Your task to perform on an android device: Check the settings for the Spotify app Image 0: 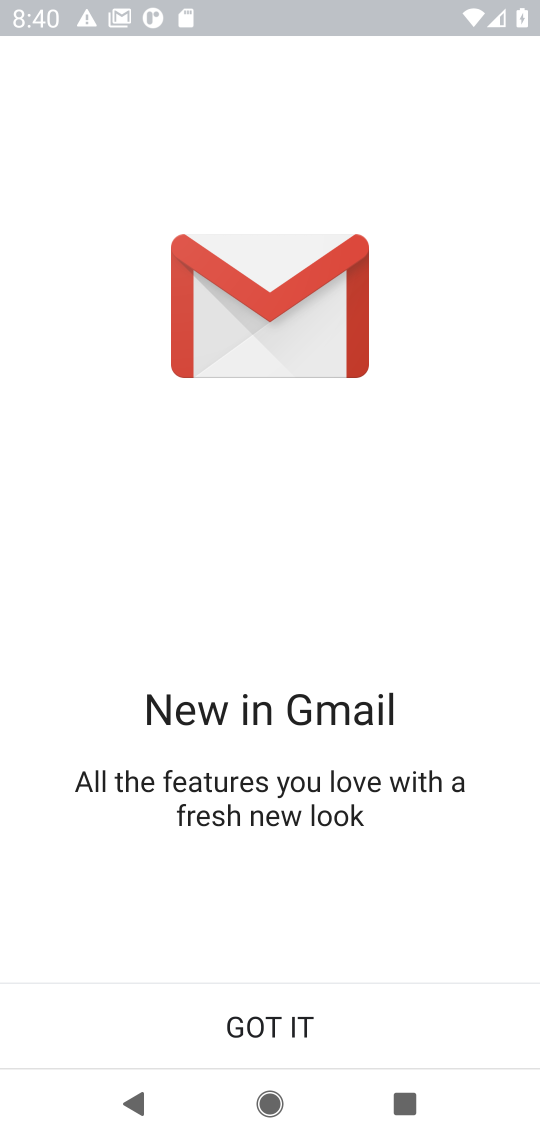
Step 0: press home button
Your task to perform on an android device: Check the settings for the Spotify app Image 1: 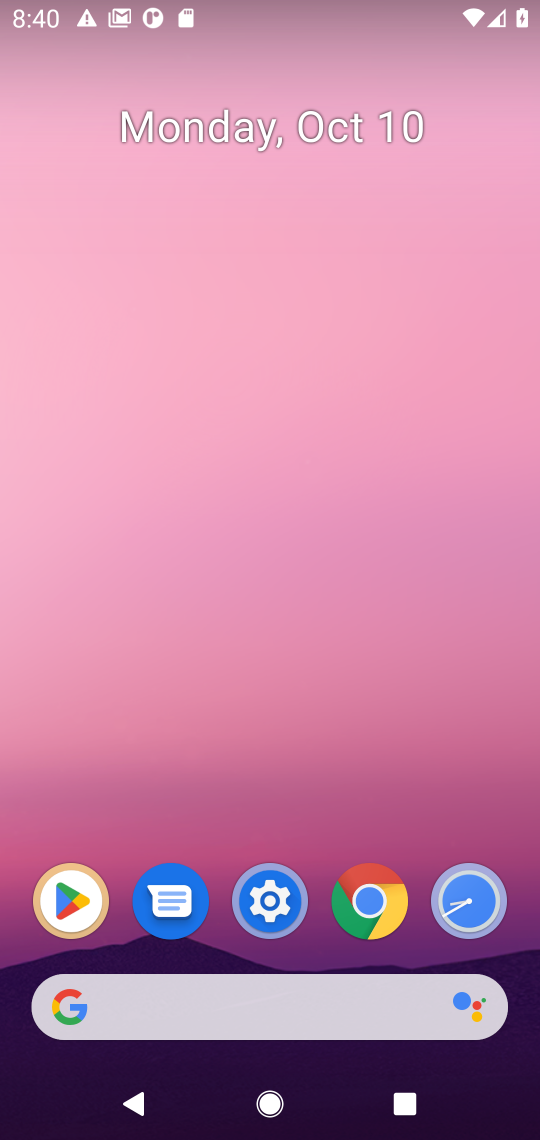
Step 1: drag from (462, 742) to (469, 86)
Your task to perform on an android device: Check the settings for the Spotify app Image 2: 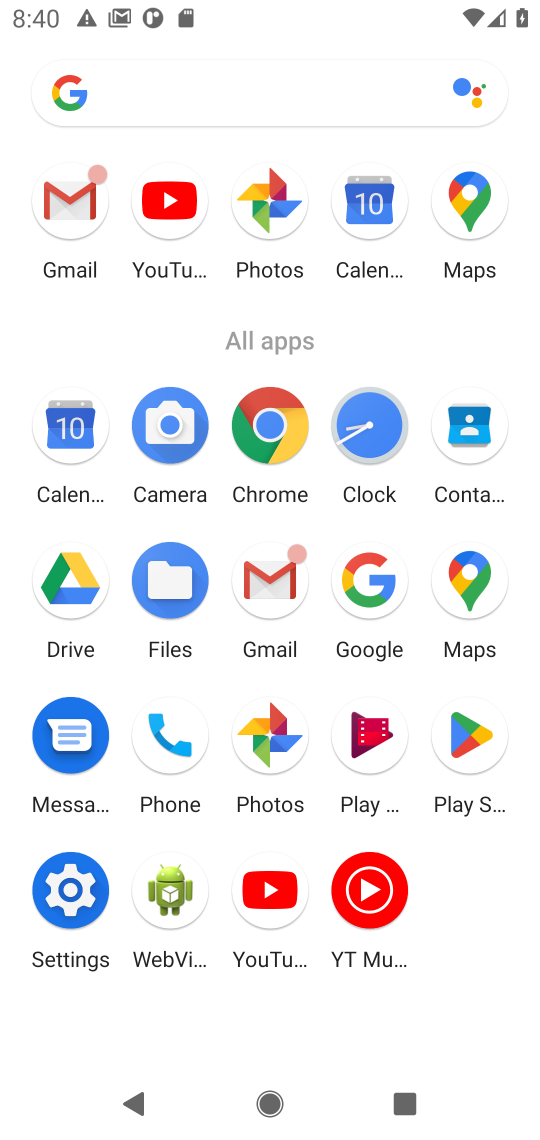
Step 2: click (471, 757)
Your task to perform on an android device: Check the settings for the Spotify app Image 3: 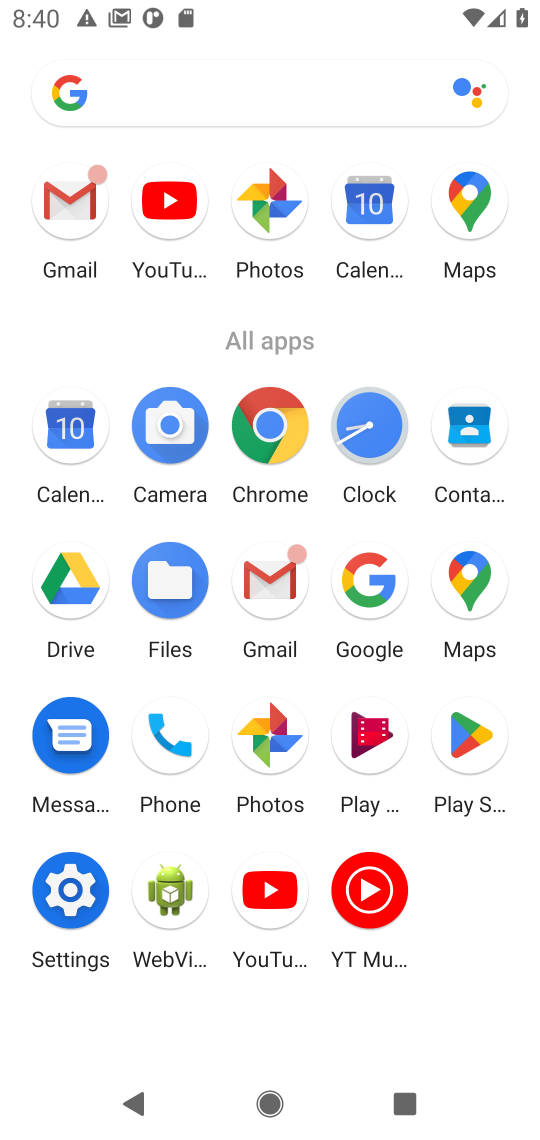
Step 3: click (471, 757)
Your task to perform on an android device: Check the settings for the Spotify app Image 4: 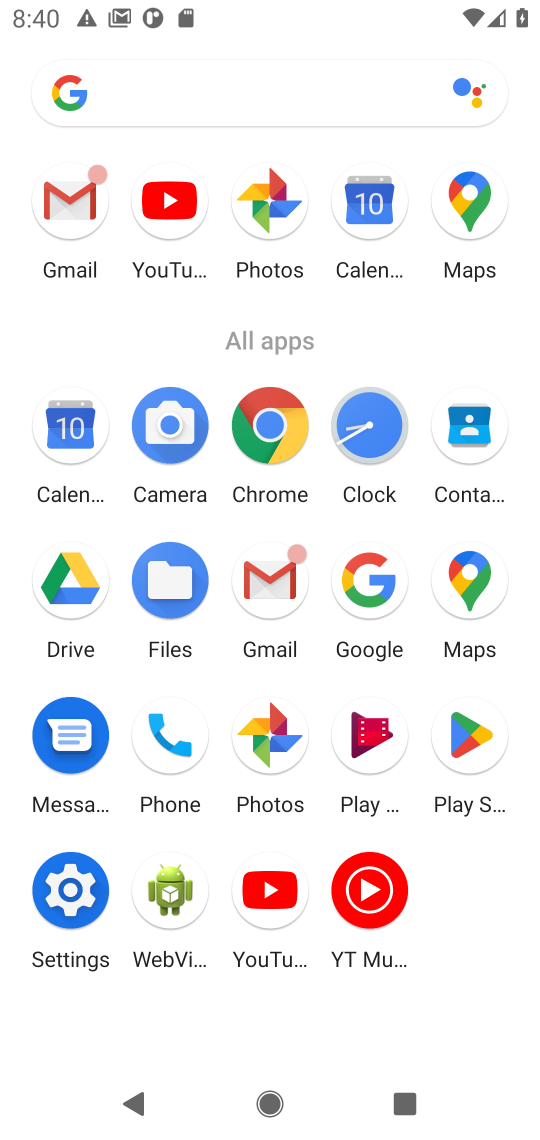
Step 4: click (465, 732)
Your task to perform on an android device: Check the settings for the Spotify app Image 5: 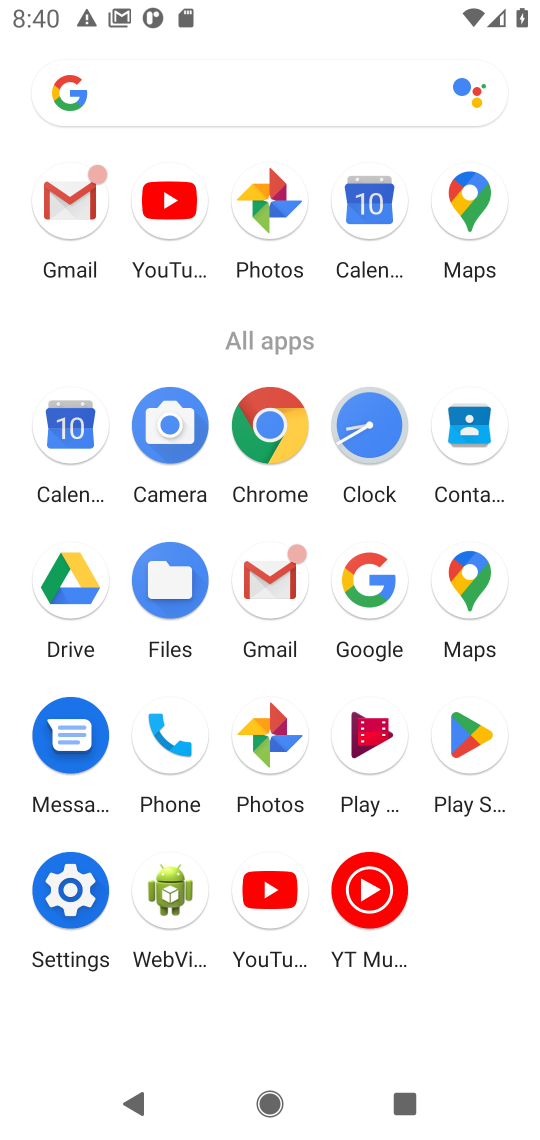
Step 5: click (480, 738)
Your task to perform on an android device: Check the settings for the Spotify app Image 6: 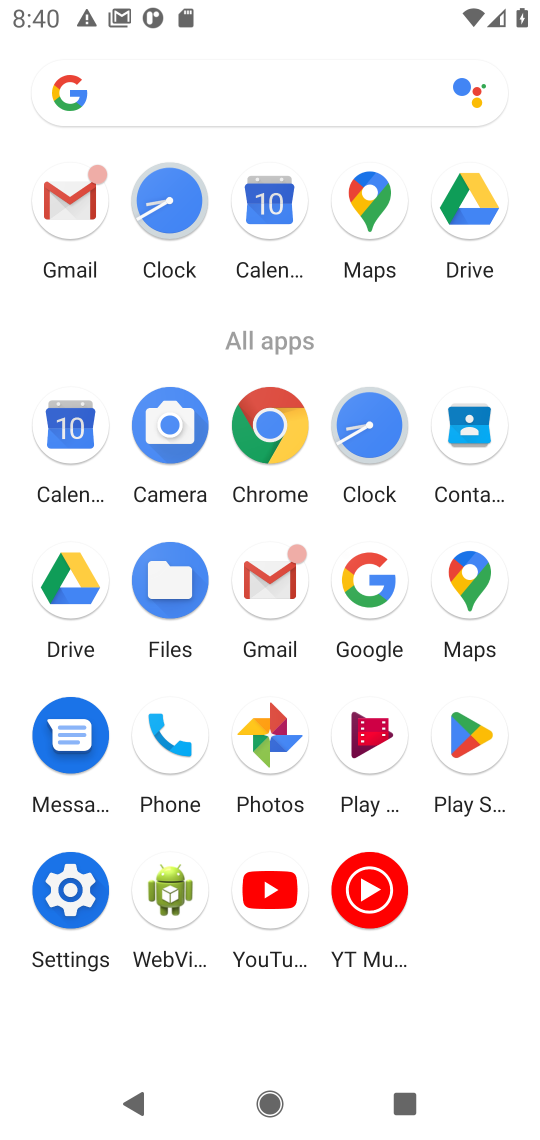
Step 6: task complete